Your task to perform on an android device: Open the map Image 0: 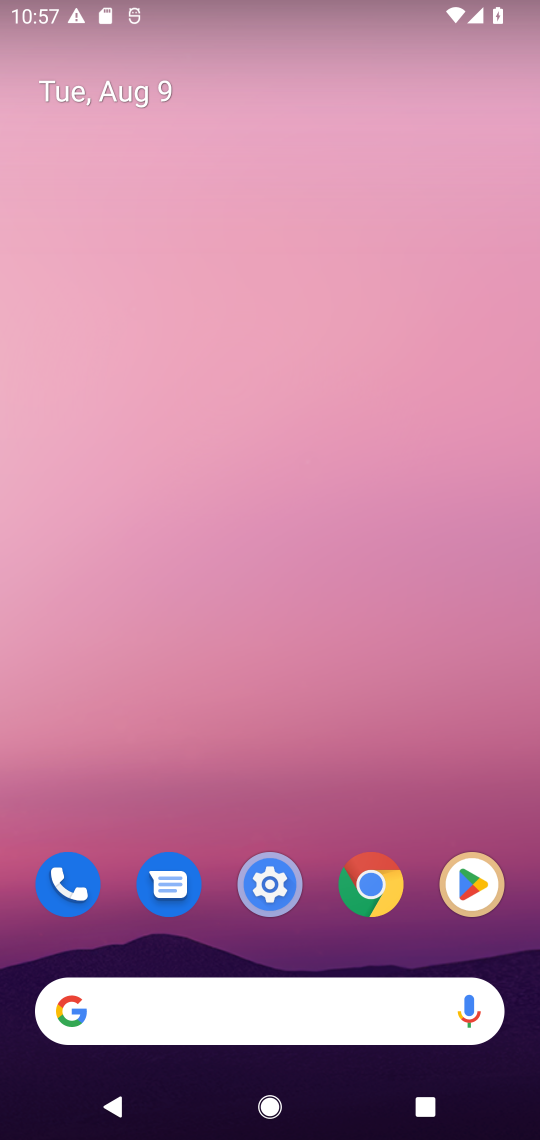
Step 0: drag from (269, 842) to (194, 564)
Your task to perform on an android device: Open the map Image 1: 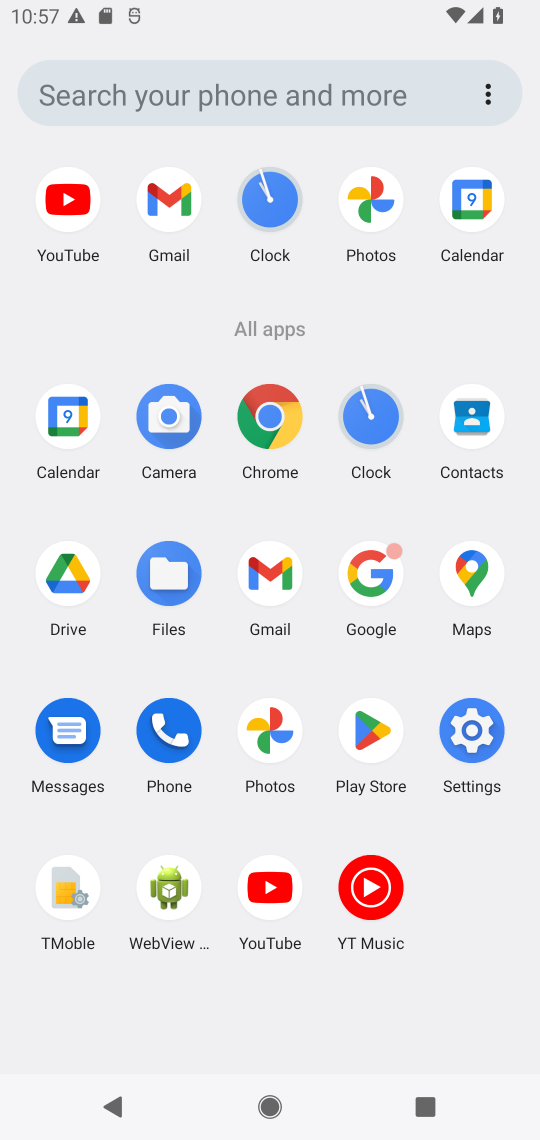
Step 1: drag from (288, 817) to (251, 539)
Your task to perform on an android device: Open the map Image 2: 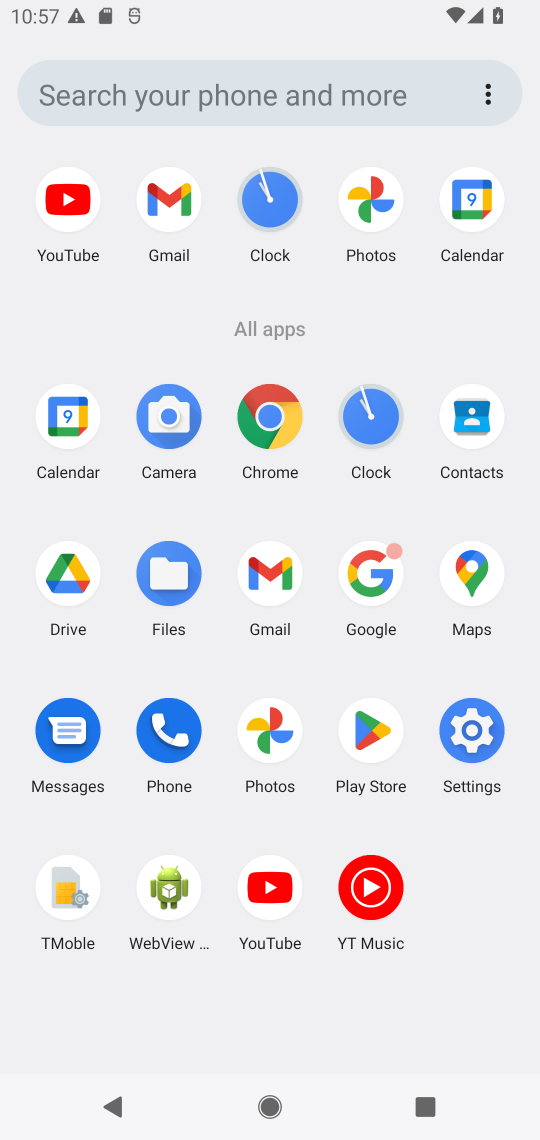
Step 2: click (471, 542)
Your task to perform on an android device: Open the map Image 3: 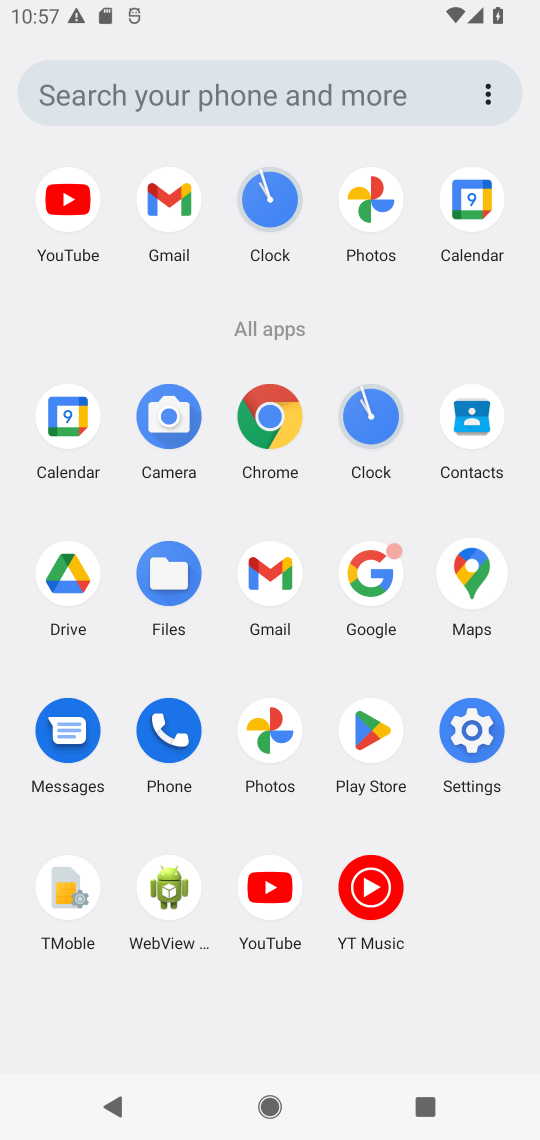
Step 3: click (467, 565)
Your task to perform on an android device: Open the map Image 4: 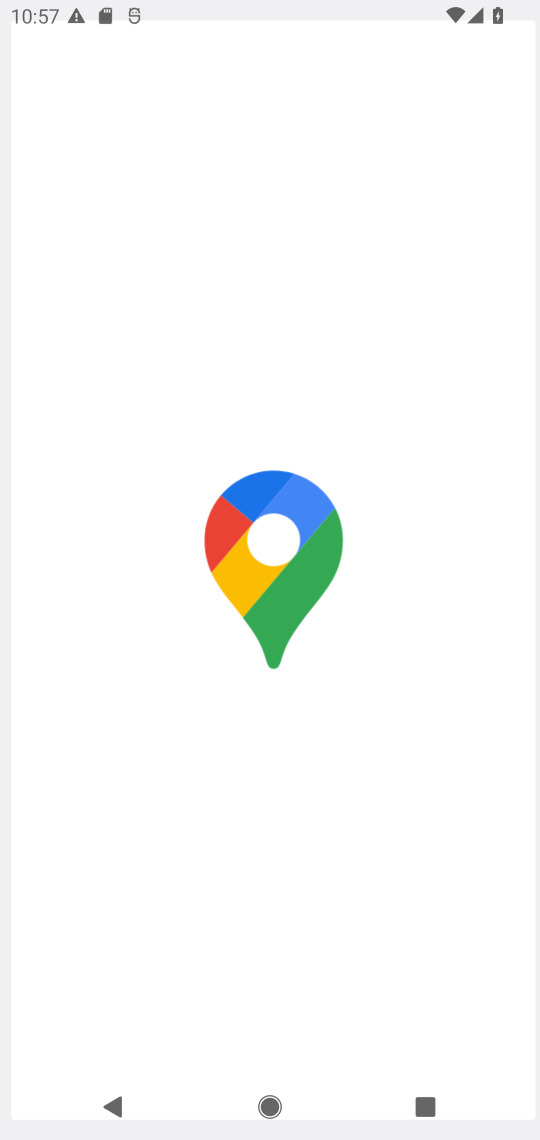
Step 4: click (468, 569)
Your task to perform on an android device: Open the map Image 5: 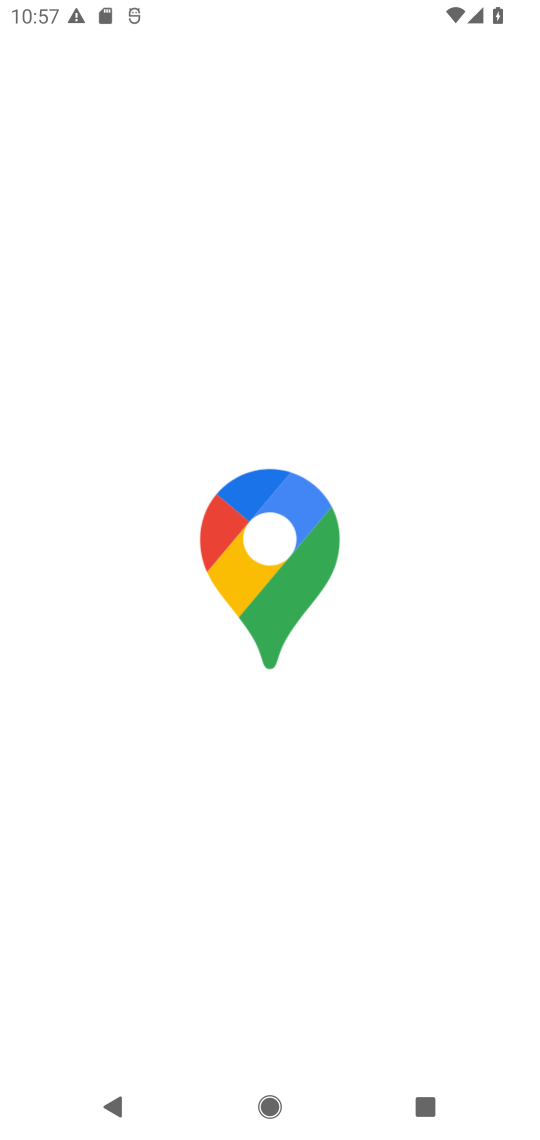
Step 5: click (275, 535)
Your task to perform on an android device: Open the map Image 6: 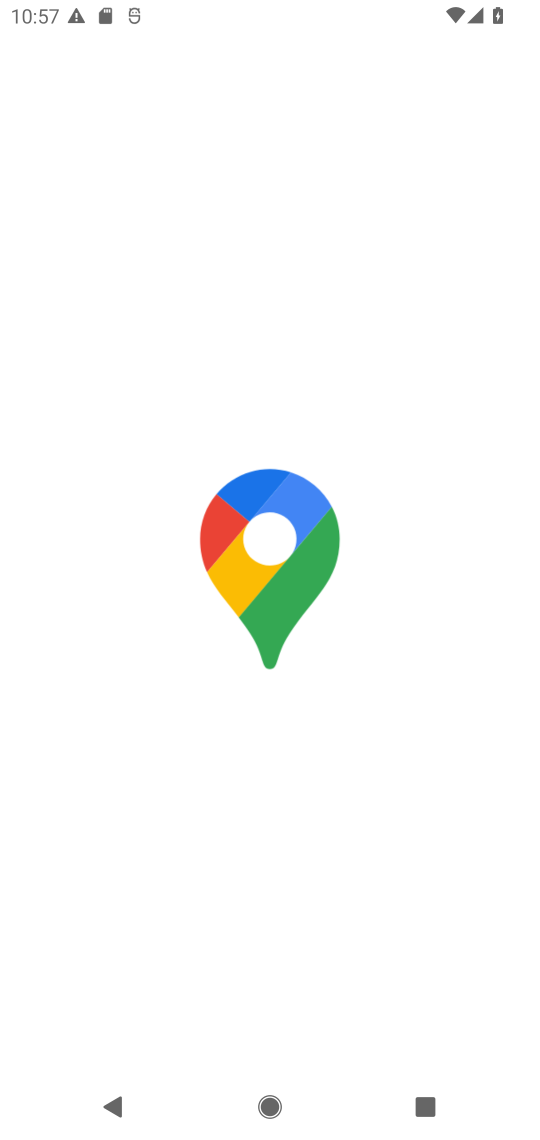
Step 6: drag from (248, 712) to (260, 486)
Your task to perform on an android device: Open the map Image 7: 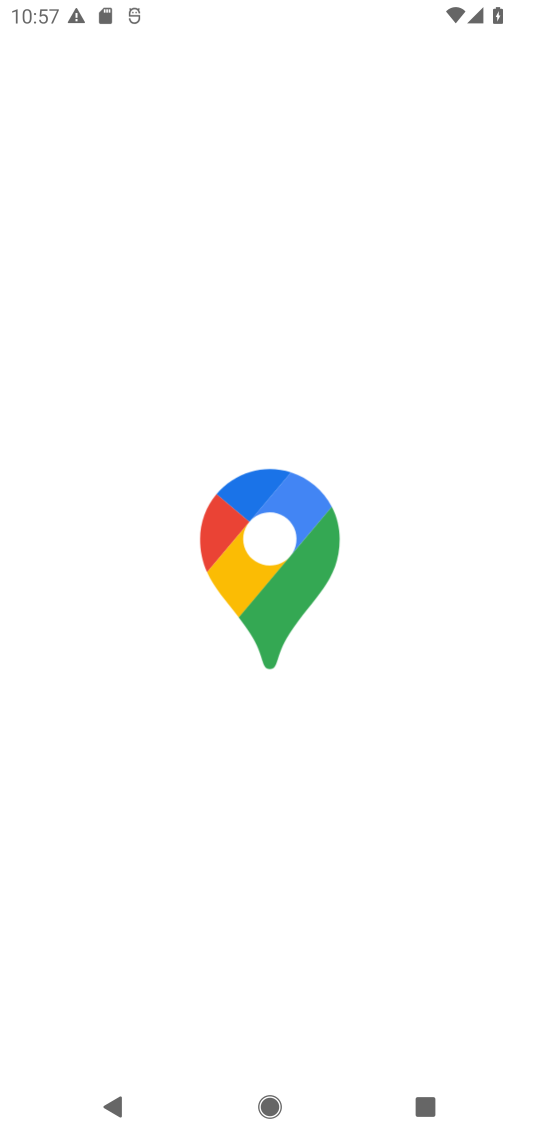
Step 7: click (250, 495)
Your task to perform on an android device: Open the map Image 8: 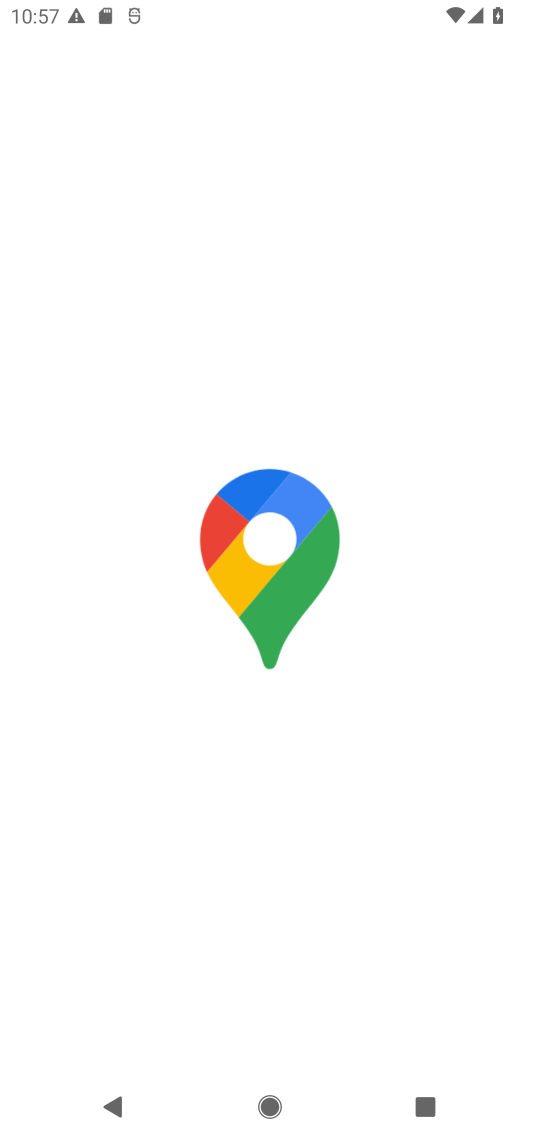
Step 8: click (250, 504)
Your task to perform on an android device: Open the map Image 9: 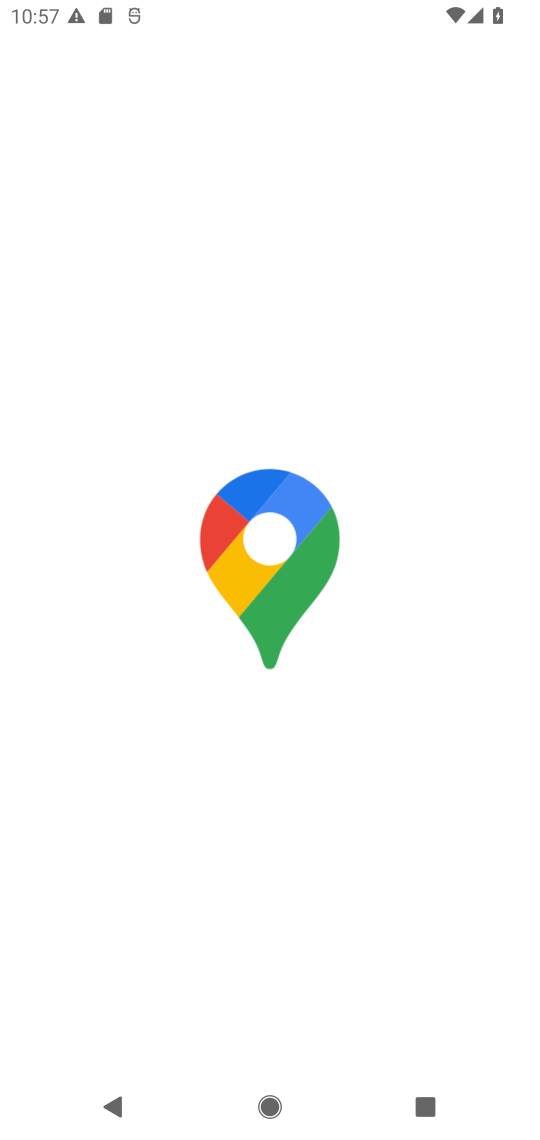
Step 9: click (280, 520)
Your task to perform on an android device: Open the map Image 10: 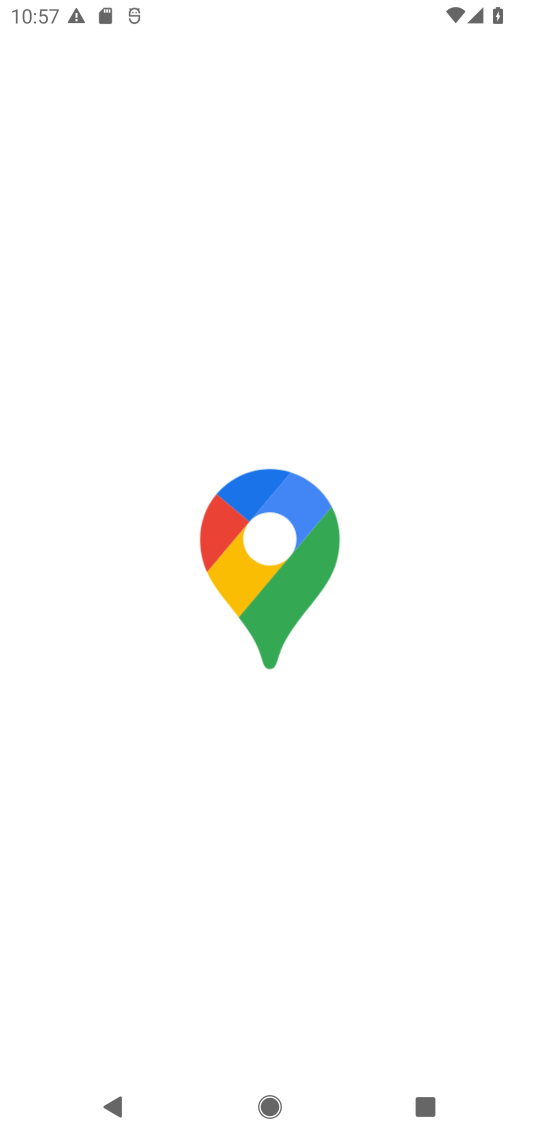
Step 10: task complete